Your task to perform on an android device: What's the weather going to be this weekend? Image 0: 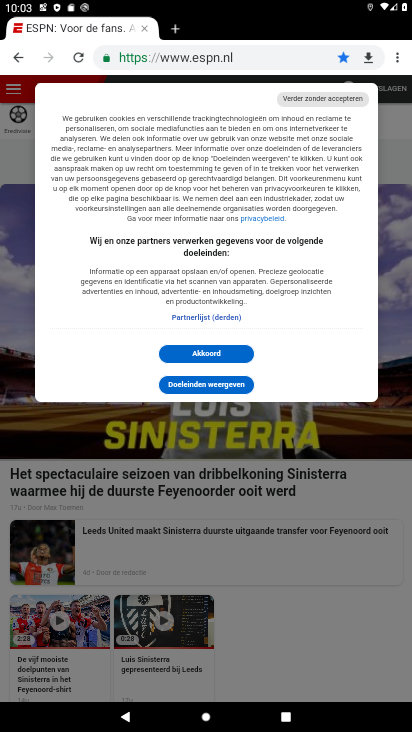
Step 0: press home button
Your task to perform on an android device: What's the weather going to be this weekend? Image 1: 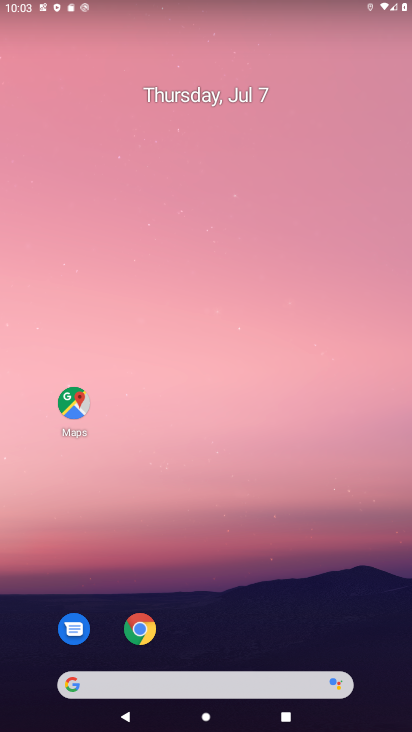
Step 1: drag from (297, 638) to (290, 163)
Your task to perform on an android device: What's the weather going to be this weekend? Image 2: 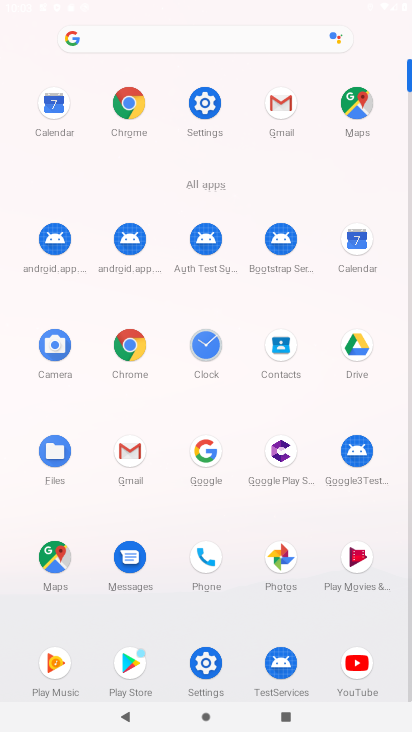
Step 2: click (140, 40)
Your task to perform on an android device: What's the weather going to be this weekend? Image 3: 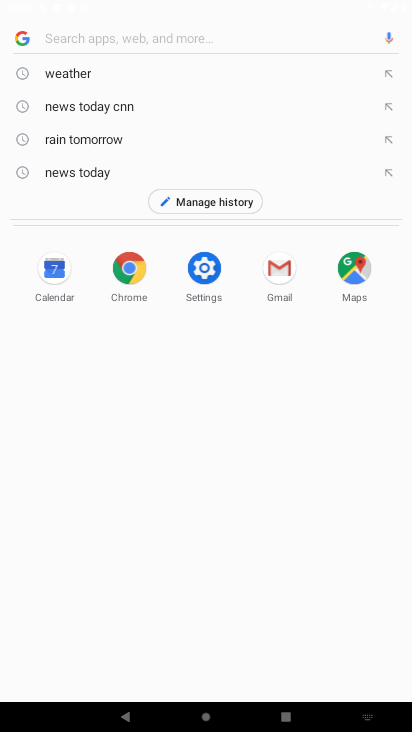
Step 3: click (69, 68)
Your task to perform on an android device: What's the weather going to be this weekend? Image 4: 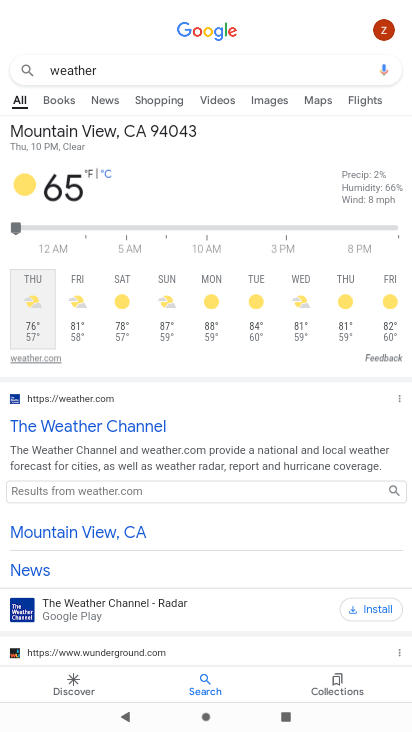
Step 4: task complete